Your task to perform on an android device: show emergency info Image 0: 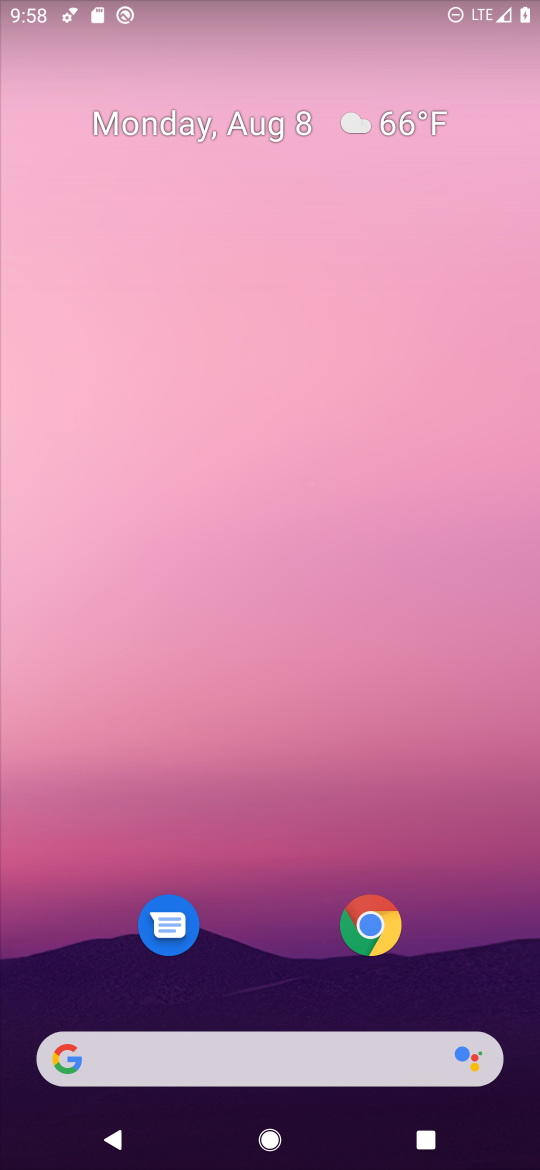
Step 0: drag from (278, 958) to (383, 8)
Your task to perform on an android device: show emergency info Image 1: 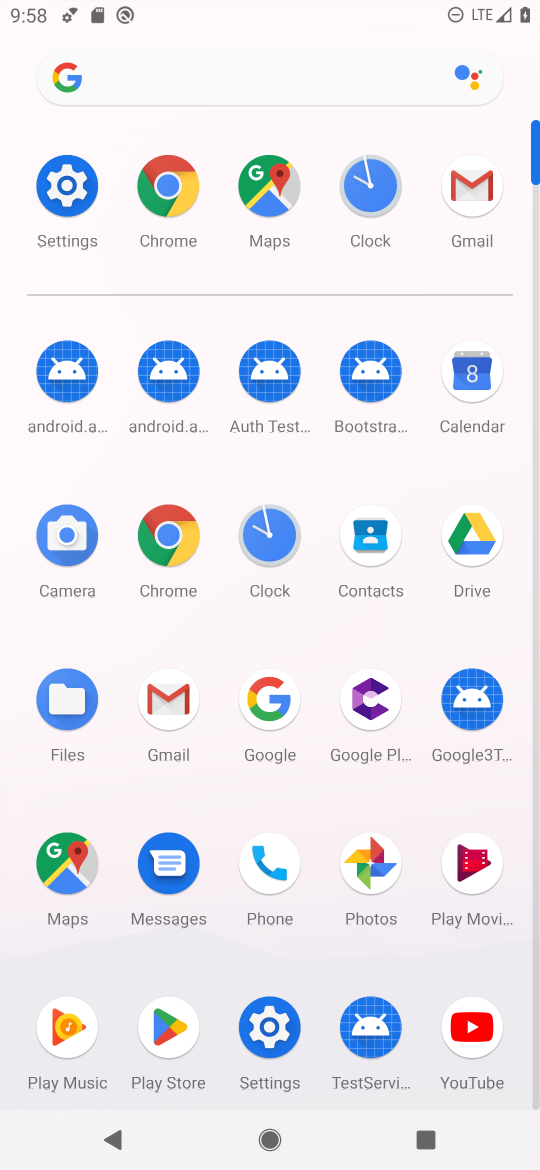
Step 1: click (265, 1025)
Your task to perform on an android device: show emergency info Image 2: 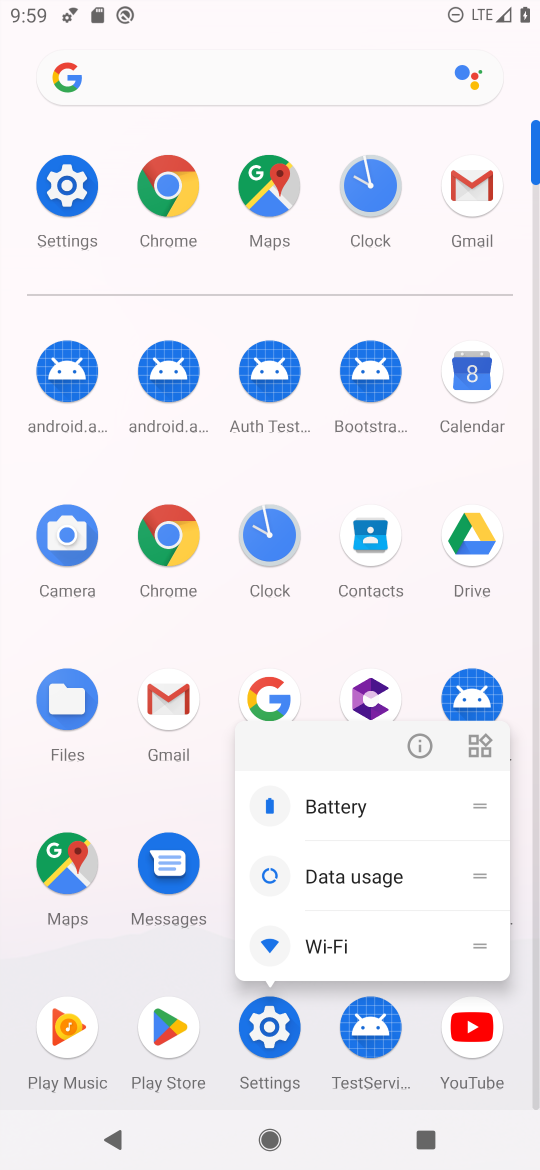
Step 2: click (274, 1013)
Your task to perform on an android device: show emergency info Image 3: 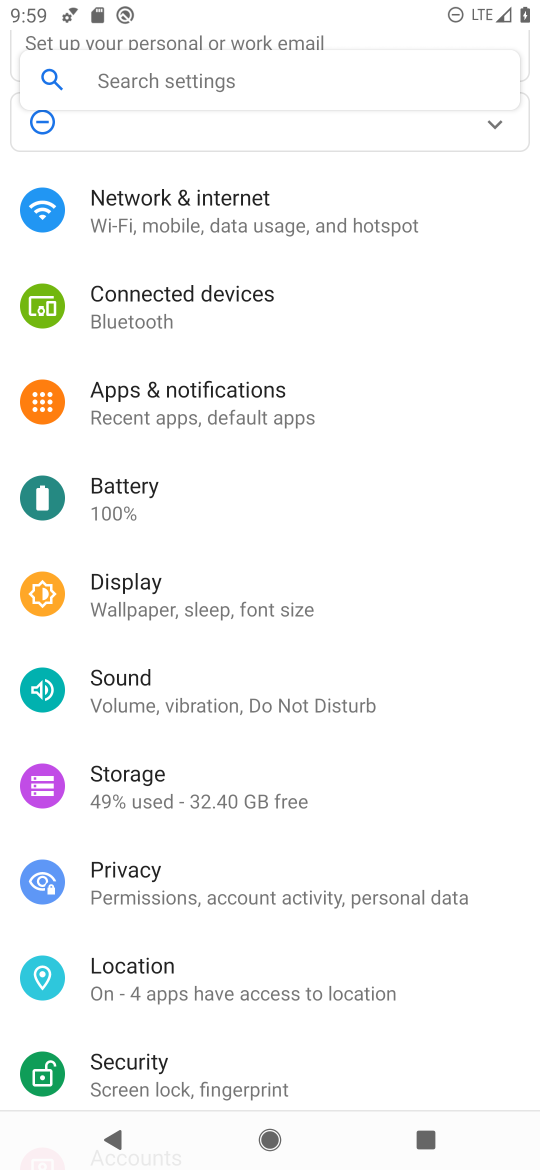
Step 3: drag from (235, 983) to (410, 125)
Your task to perform on an android device: show emergency info Image 4: 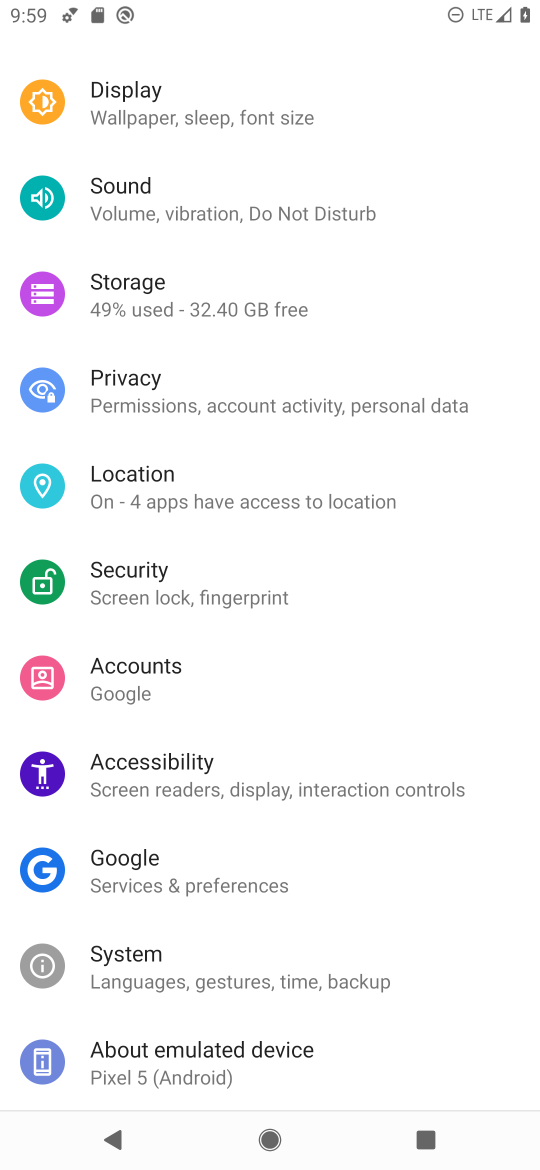
Step 4: click (168, 1038)
Your task to perform on an android device: show emergency info Image 5: 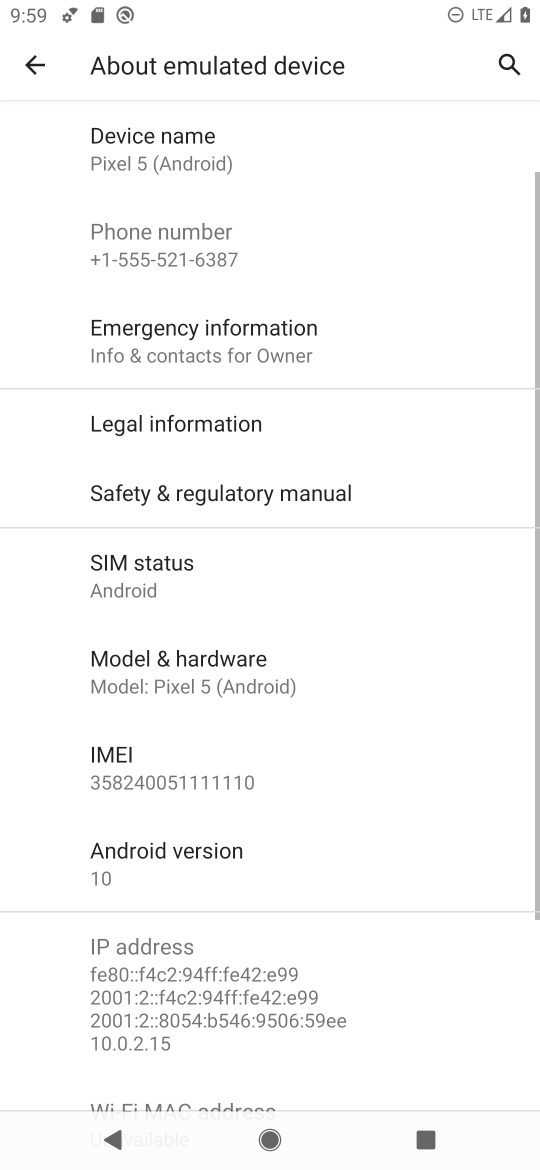
Step 5: click (179, 350)
Your task to perform on an android device: show emergency info Image 6: 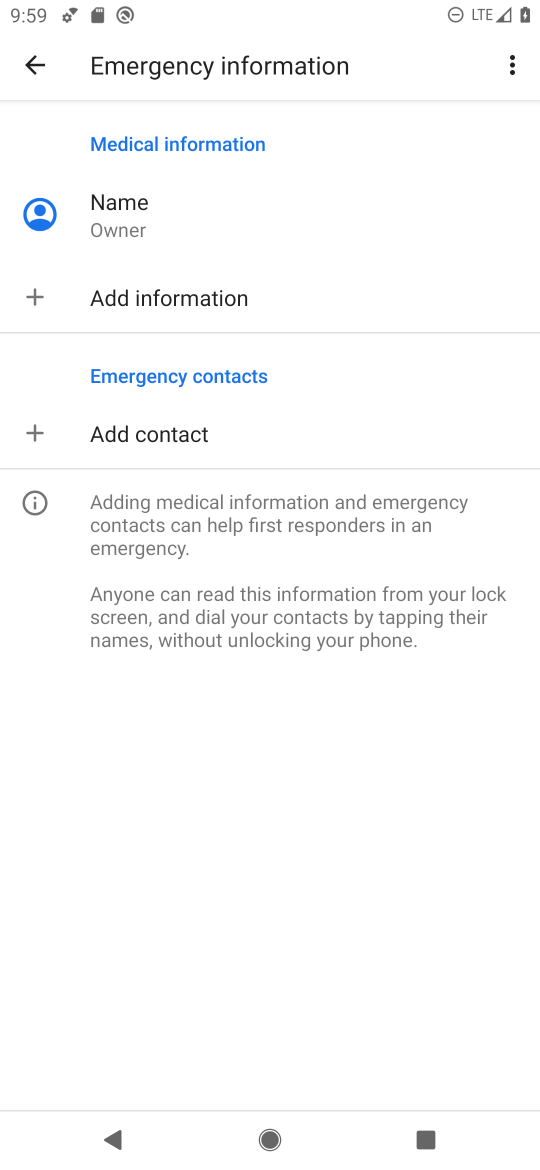
Step 6: task complete